Your task to perform on an android device: Go to Android settings Image 0: 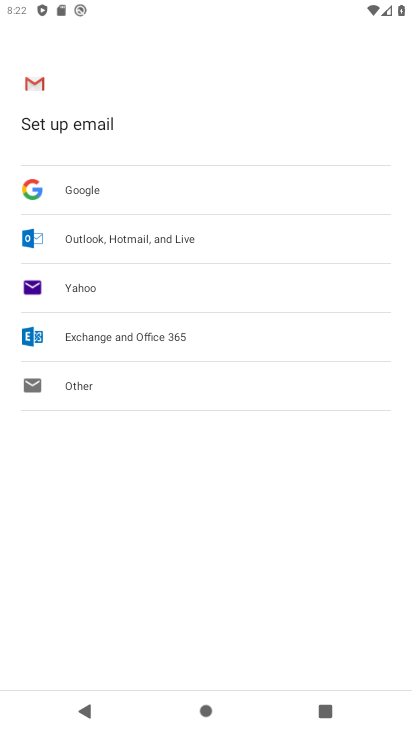
Step 0: press back button
Your task to perform on an android device: Go to Android settings Image 1: 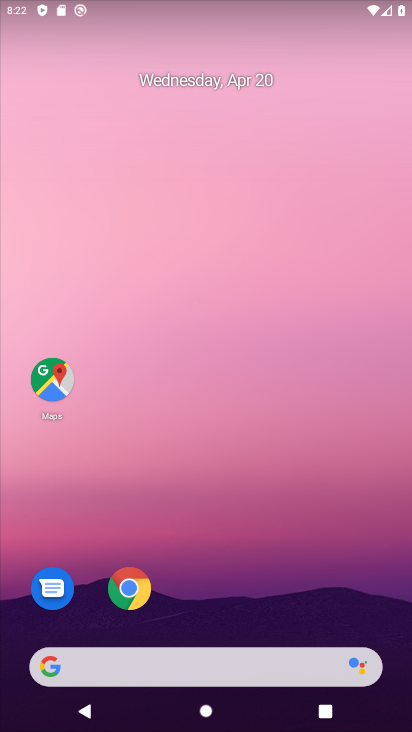
Step 1: drag from (331, 462) to (260, 1)
Your task to perform on an android device: Go to Android settings Image 2: 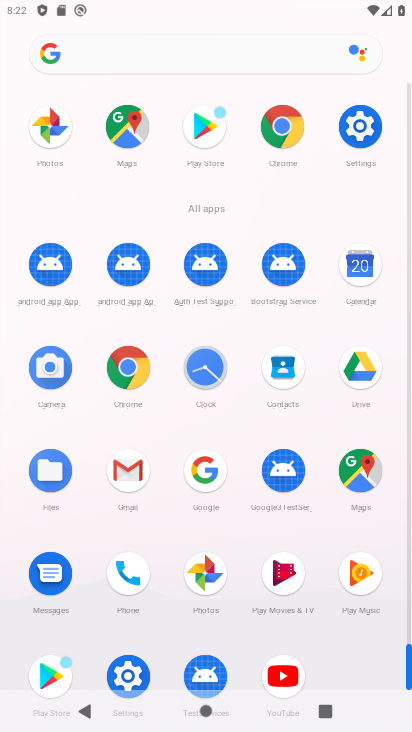
Step 2: click (126, 670)
Your task to perform on an android device: Go to Android settings Image 3: 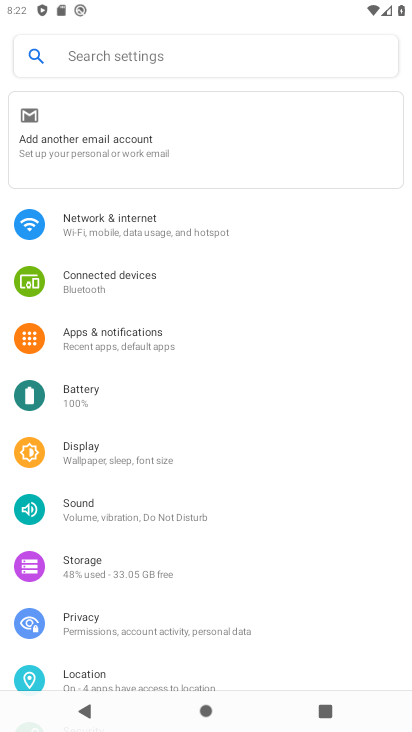
Step 3: task complete